Your task to perform on an android device: set an alarm Image 0: 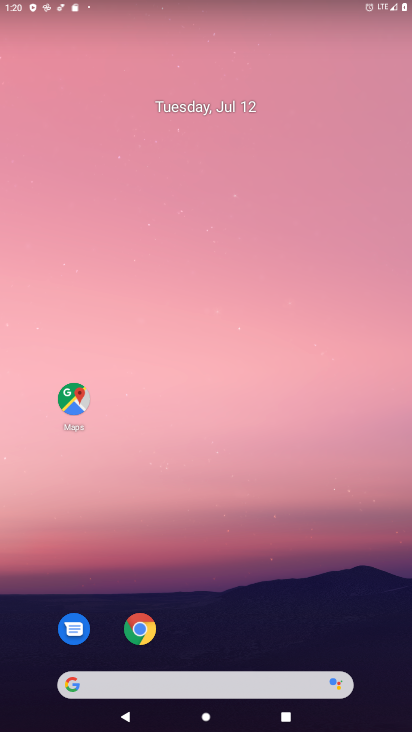
Step 0: drag from (125, 599) to (194, 44)
Your task to perform on an android device: set an alarm Image 1: 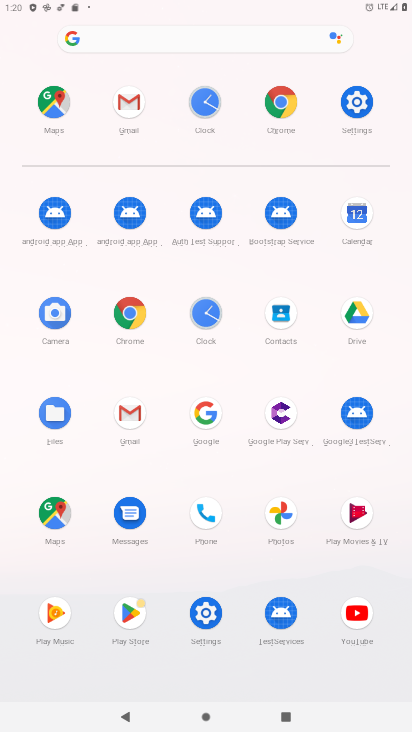
Step 1: click (180, 312)
Your task to perform on an android device: set an alarm Image 2: 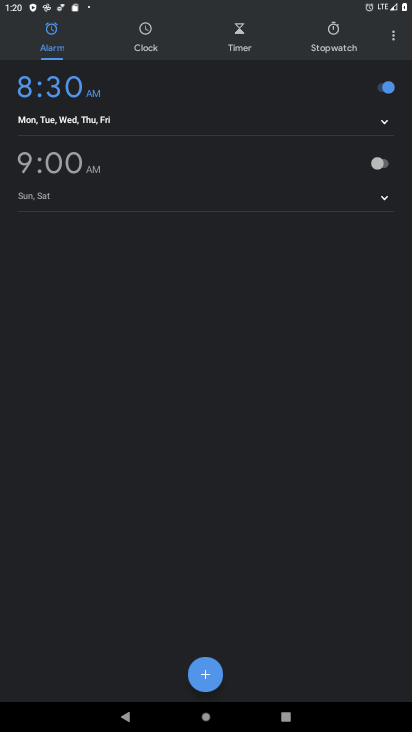
Step 2: click (385, 160)
Your task to perform on an android device: set an alarm Image 3: 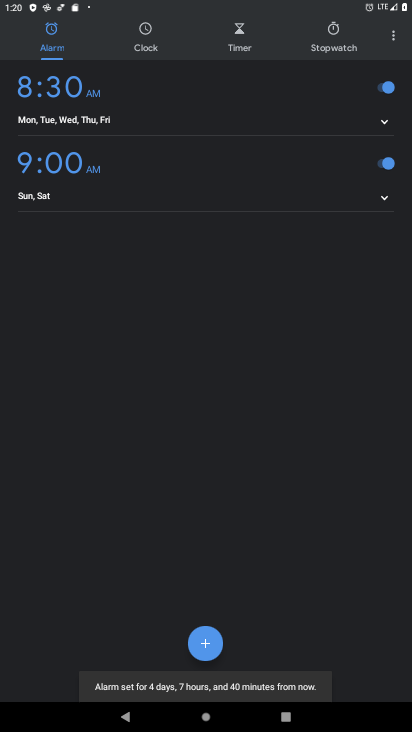
Step 3: task complete